Your task to perform on an android device: change timer sound Image 0: 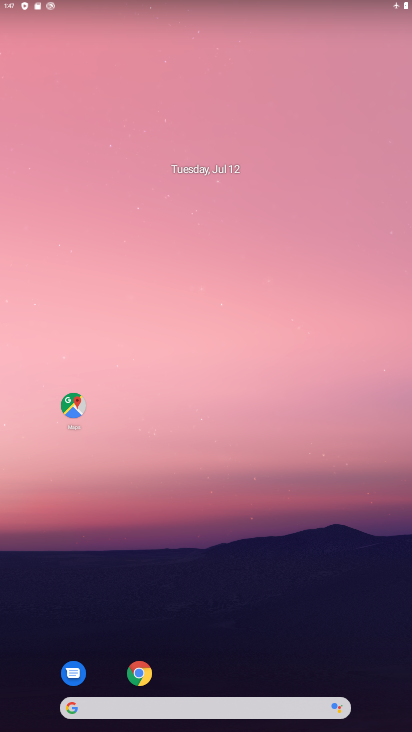
Step 0: drag from (235, 654) to (346, 55)
Your task to perform on an android device: change timer sound Image 1: 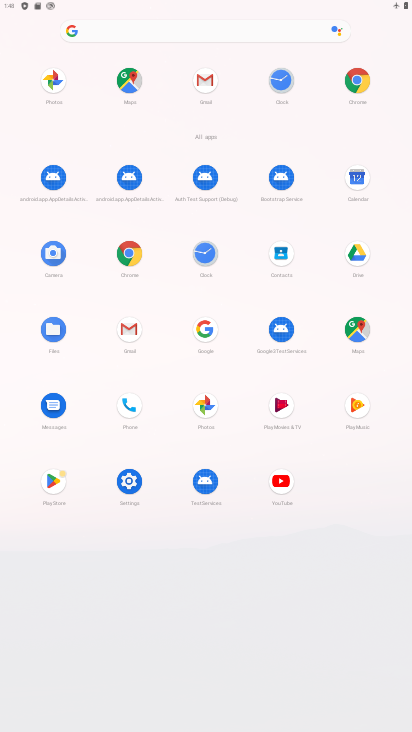
Step 1: click (198, 250)
Your task to perform on an android device: change timer sound Image 2: 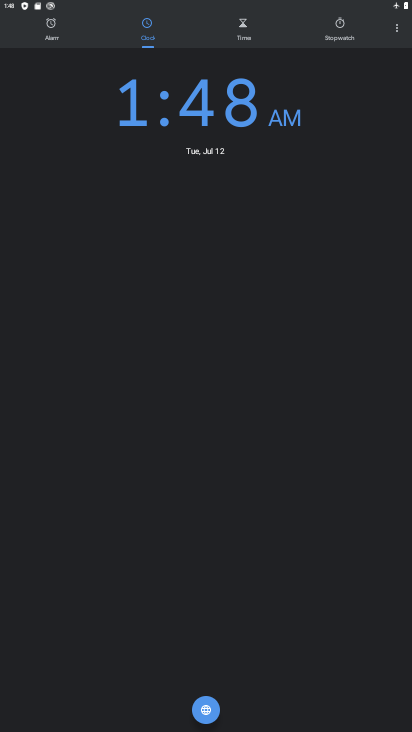
Step 2: click (392, 29)
Your task to perform on an android device: change timer sound Image 3: 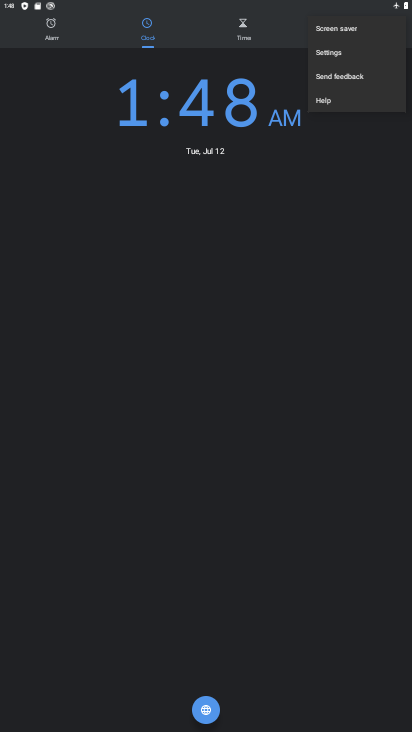
Step 3: click (338, 53)
Your task to perform on an android device: change timer sound Image 4: 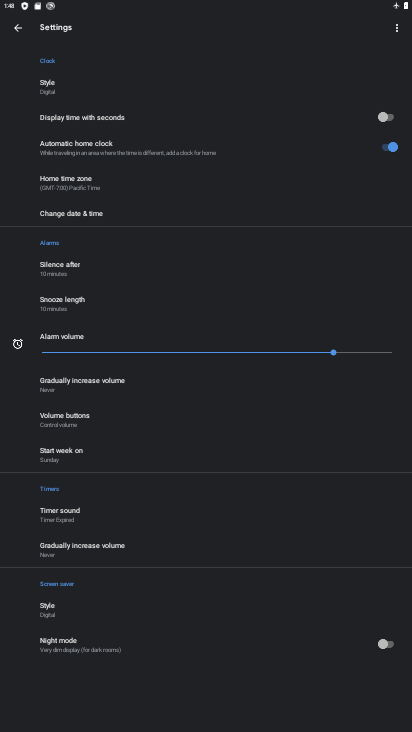
Step 4: click (69, 518)
Your task to perform on an android device: change timer sound Image 5: 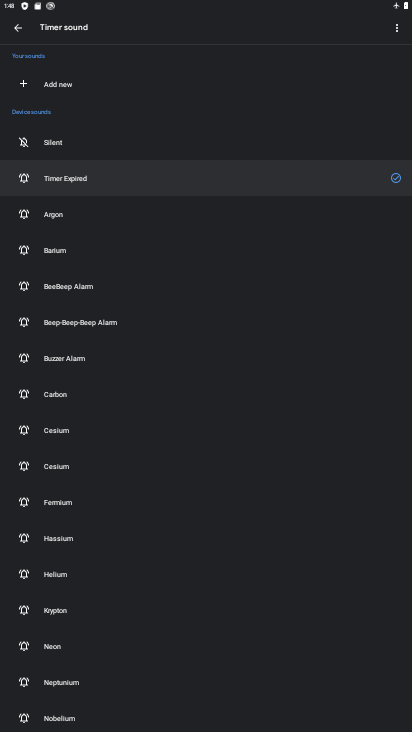
Step 5: click (78, 290)
Your task to perform on an android device: change timer sound Image 6: 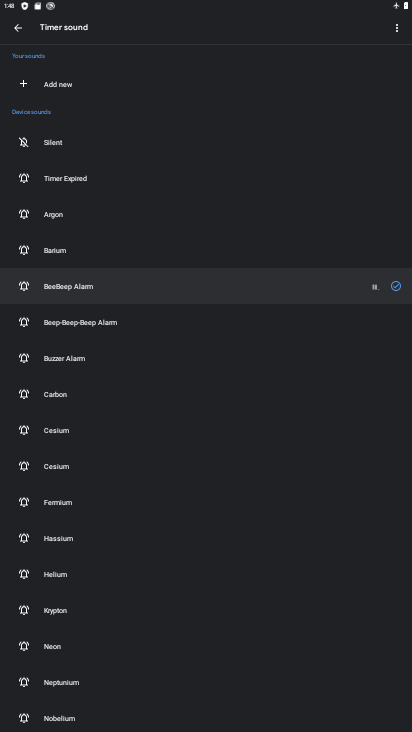
Step 6: click (392, 284)
Your task to perform on an android device: change timer sound Image 7: 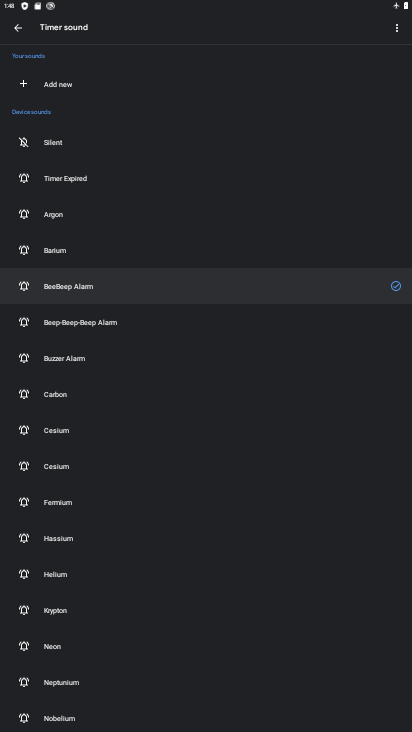
Step 7: task complete